Your task to perform on an android device: Open the stopwatch Image 0: 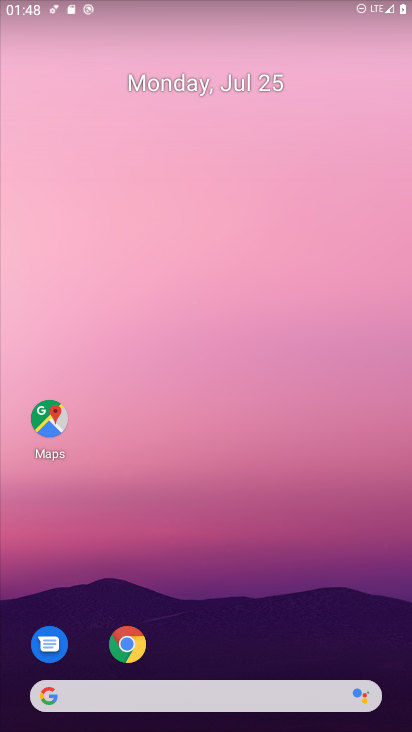
Step 0: drag from (215, 709) to (214, 319)
Your task to perform on an android device: Open the stopwatch Image 1: 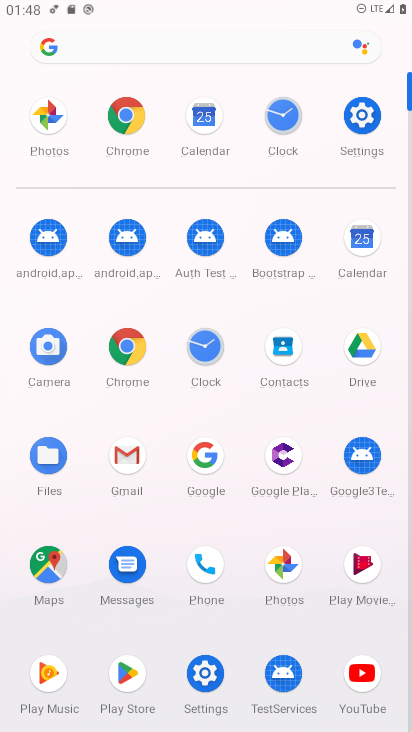
Step 1: click (211, 348)
Your task to perform on an android device: Open the stopwatch Image 2: 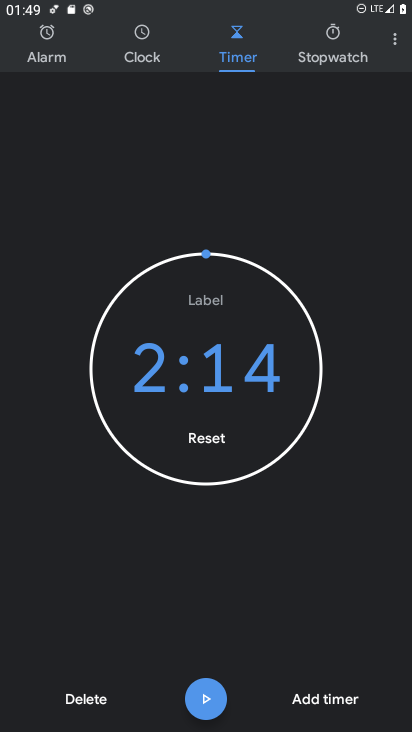
Step 2: click (332, 40)
Your task to perform on an android device: Open the stopwatch Image 3: 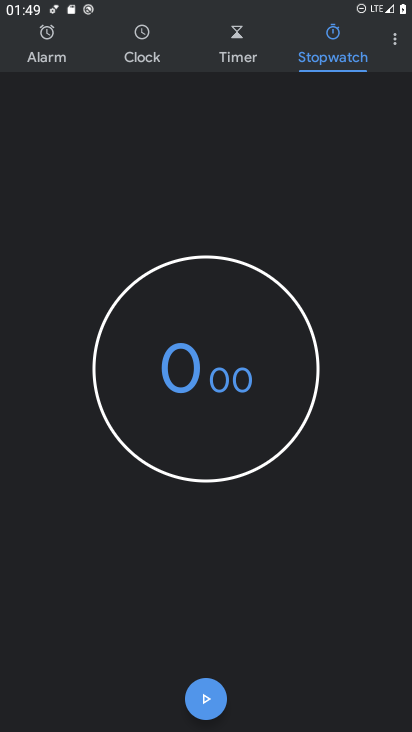
Step 3: task complete